Your task to perform on an android device: Show me popular videos on Youtube Image 0: 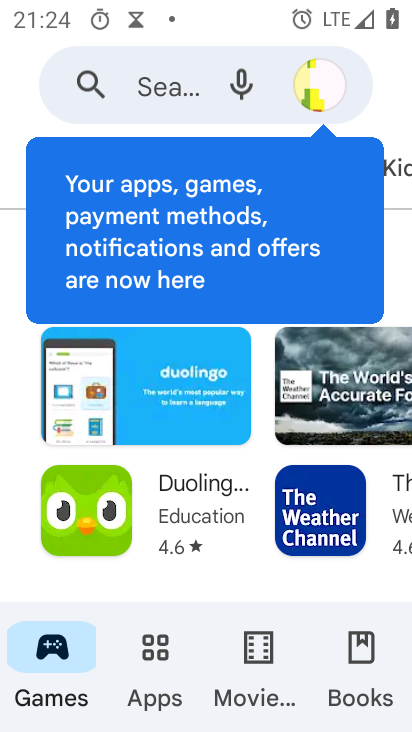
Step 0: press home button
Your task to perform on an android device: Show me popular videos on Youtube Image 1: 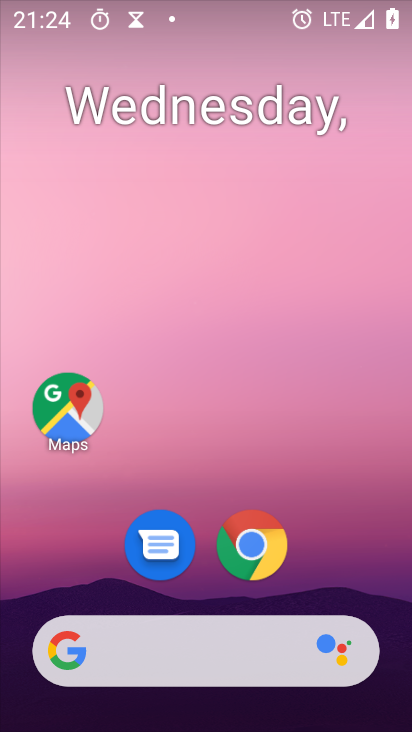
Step 1: drag from (168, 634) to (305, 223)
Your task to perform on an android device: Show me popular videos on Youtube Image 2: 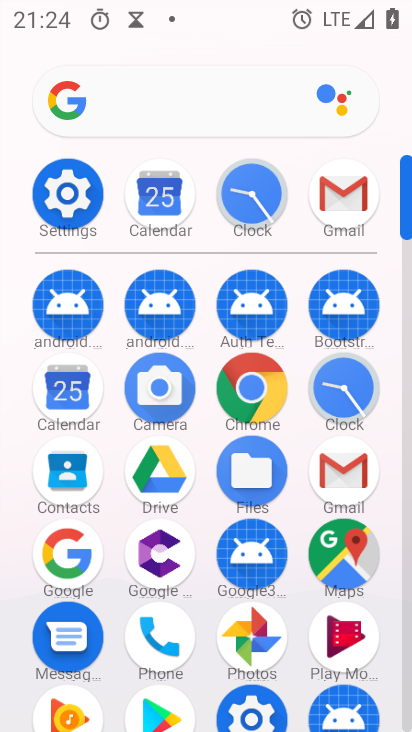
Step 2: drag from (211, 624) to (405, 197)
Your task to perform on an android device: Show me popular videos on Youtube Image 3: 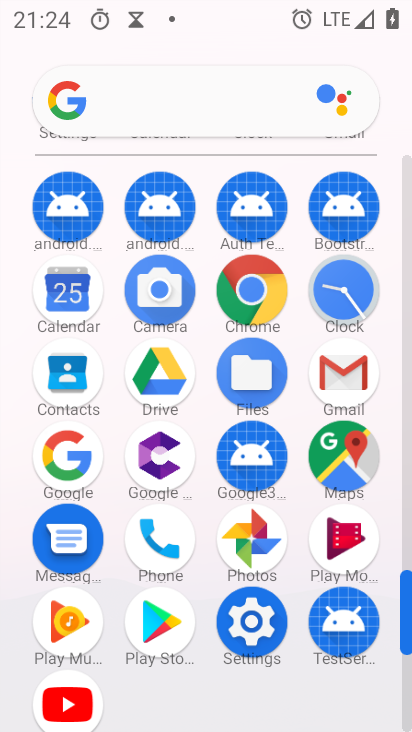
Step 3: click (68, 702)
Your task to perform on an android device: Show me popular videos on Youtube Image 4: 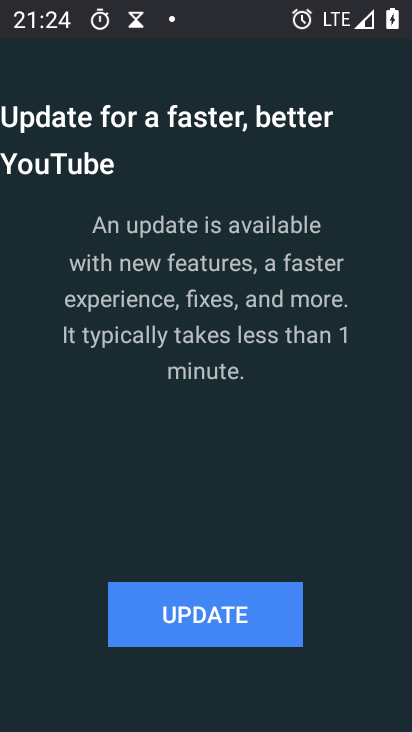
Step 4: click (183, 625)
Your task to perform on an android device: Show me popular videos on Youtube Image 5: 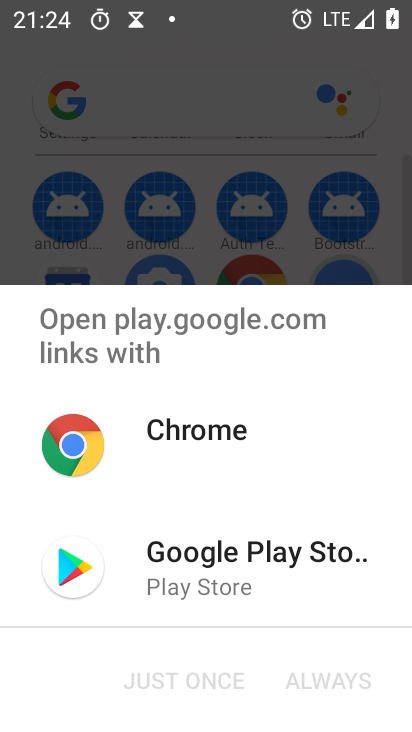
Step 5: click (183, 585)
Your task to perform on an android device: Show me popular videos on Youtube Image 6: 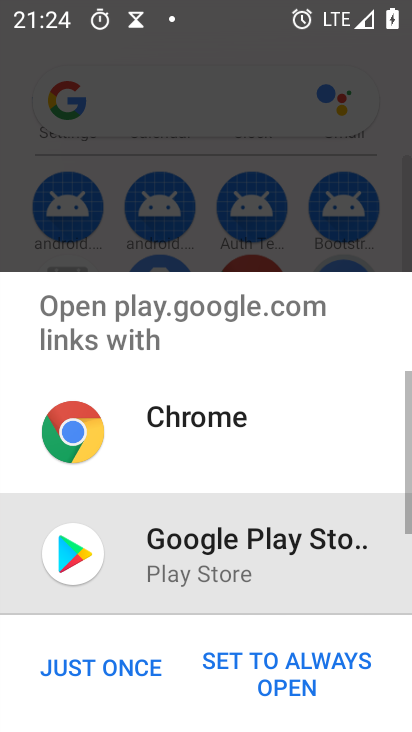
Step 6: click (141, 671)
Your task to perform on an android device: Show me popular videos on Youtube Image 7: 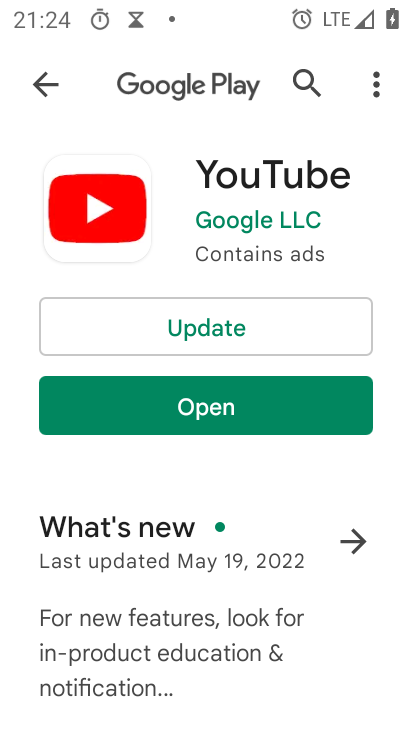
Step 7: click (219, 318)
Your task to perform on an android device: Show me popular videos on Youtube Image 8: 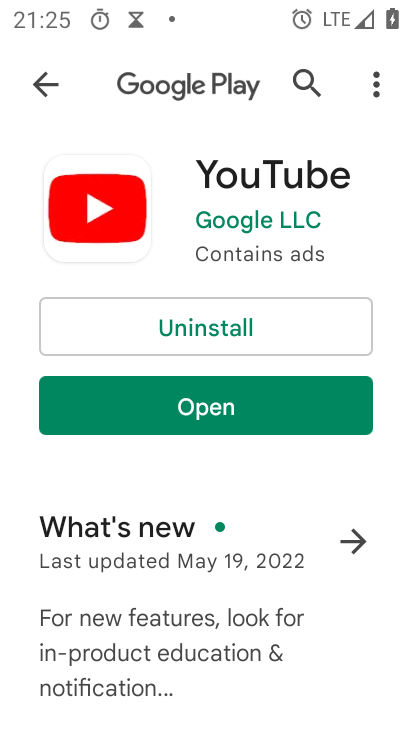
Step 8: click (234, 409)
Your task to perform on an android device: Show me popular videos on Youtube Image 9: 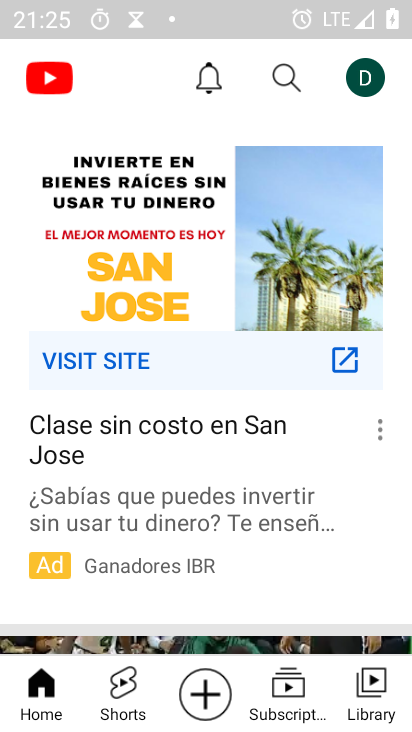
Step 9: task complete